Your task to perform on an android device: remove spam from my inbox in the gmail app Image 0: 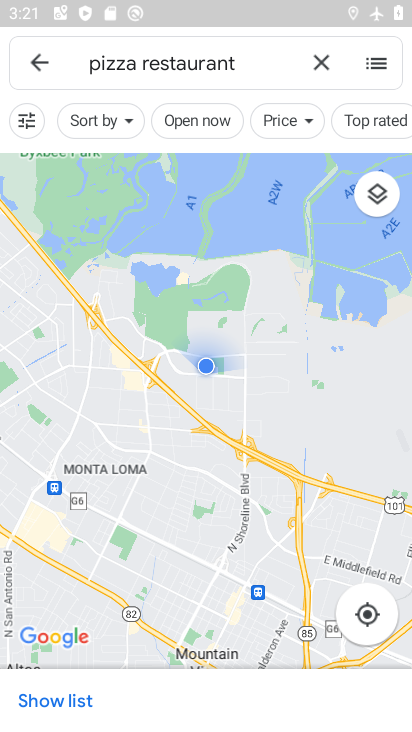
Step 0: press home button
Your task to perform on an android device: remove spam from my inbox in the gmail app Image 1: 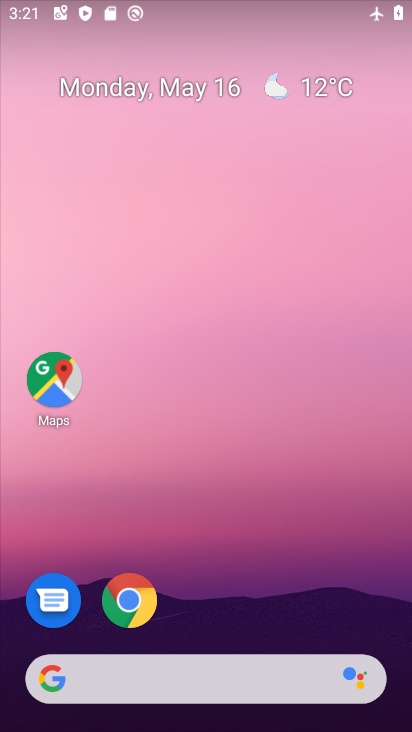
Step 1: drag from (204, 645) to (210, 5)
Your task to perform on an android device: remove spam from my inbox in the gmail app Image 2: 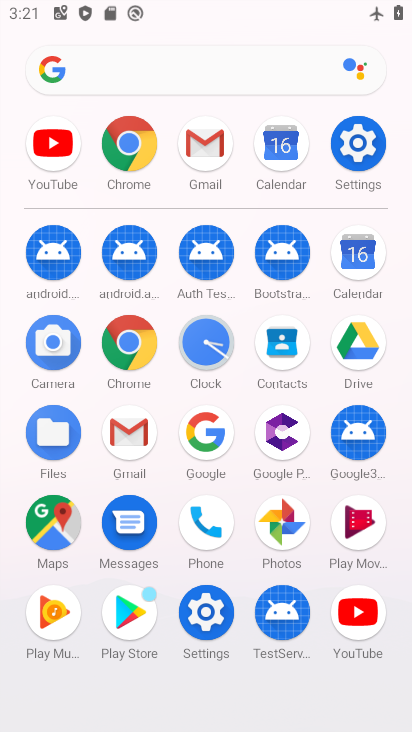
Step 2: click (140, 437)
Your task to perform on an android device: remove spam from my inbox in the gmail app Image 3: 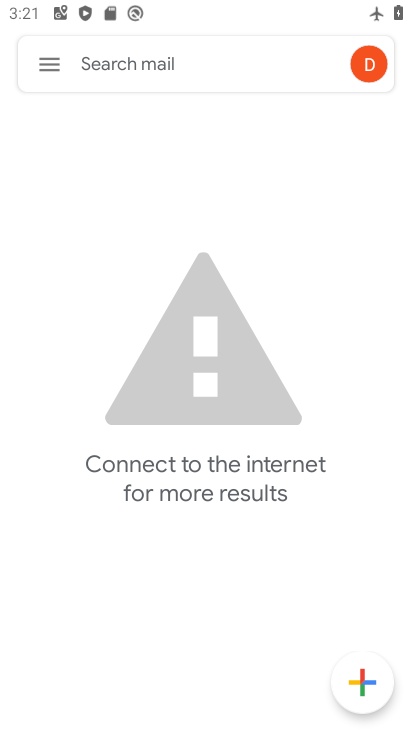
Step 3: click (43, 71)
Your task to perform on an android device: remove spam from my inbox in the gmail app Image 4: 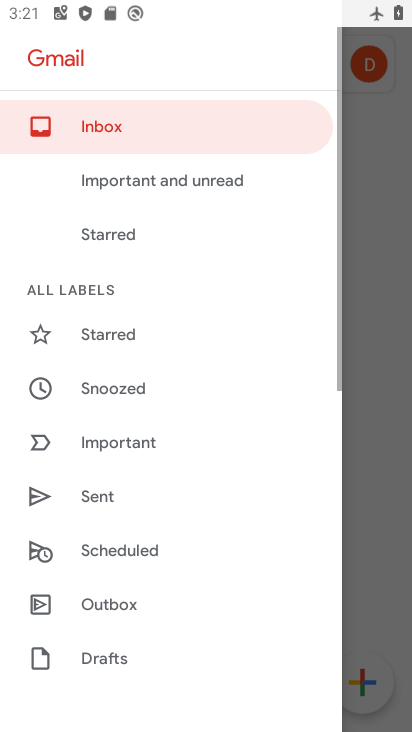
Step 4: drag from (163, 574) to (113, 219)
Your task to perform on an android device: remove spam from my inbox in the gmail app Image 5: 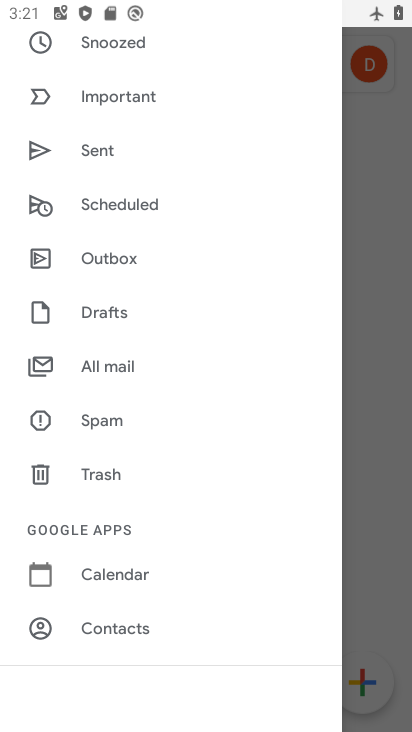
Step 5: click (113, 415)
Your task to perform on an android device: remove spam from my inbox in the gmail app Image 6: 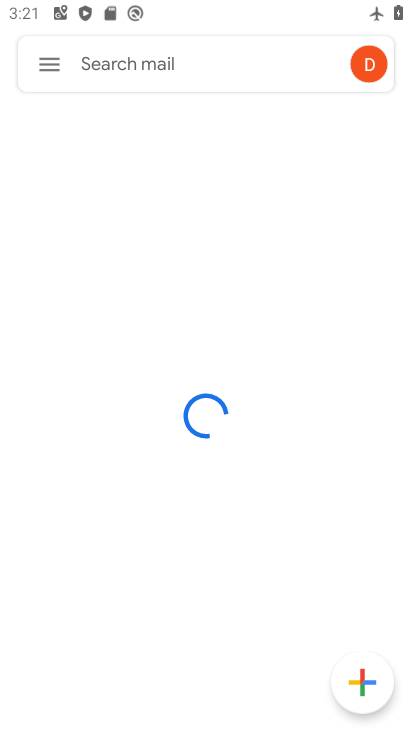
Step 6: task complete